Your task to perform on an android device: turn on data saver in the chrome app Image 0: 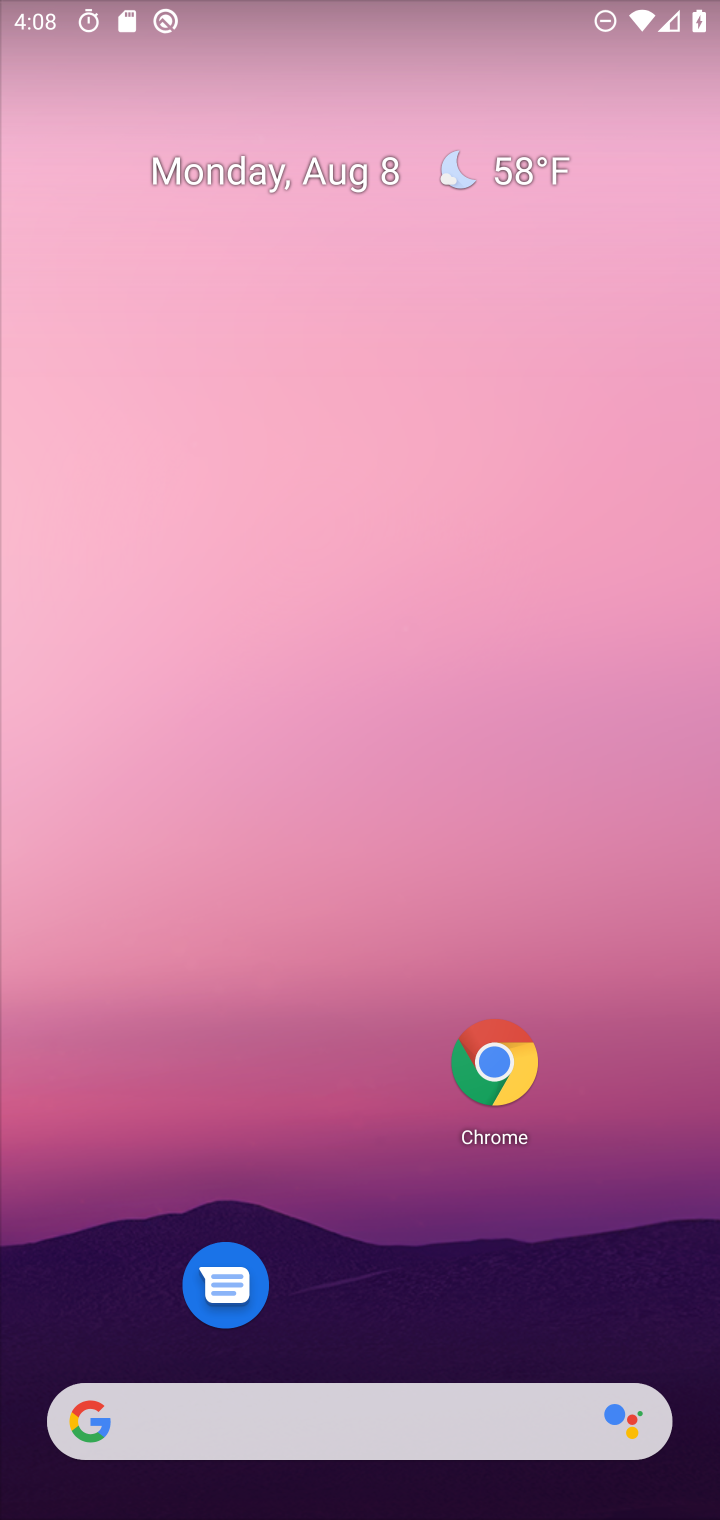
Step 0: click (497, 1068)
Your task to perform on an android device: turn on data saver in the chrome app Image 1: 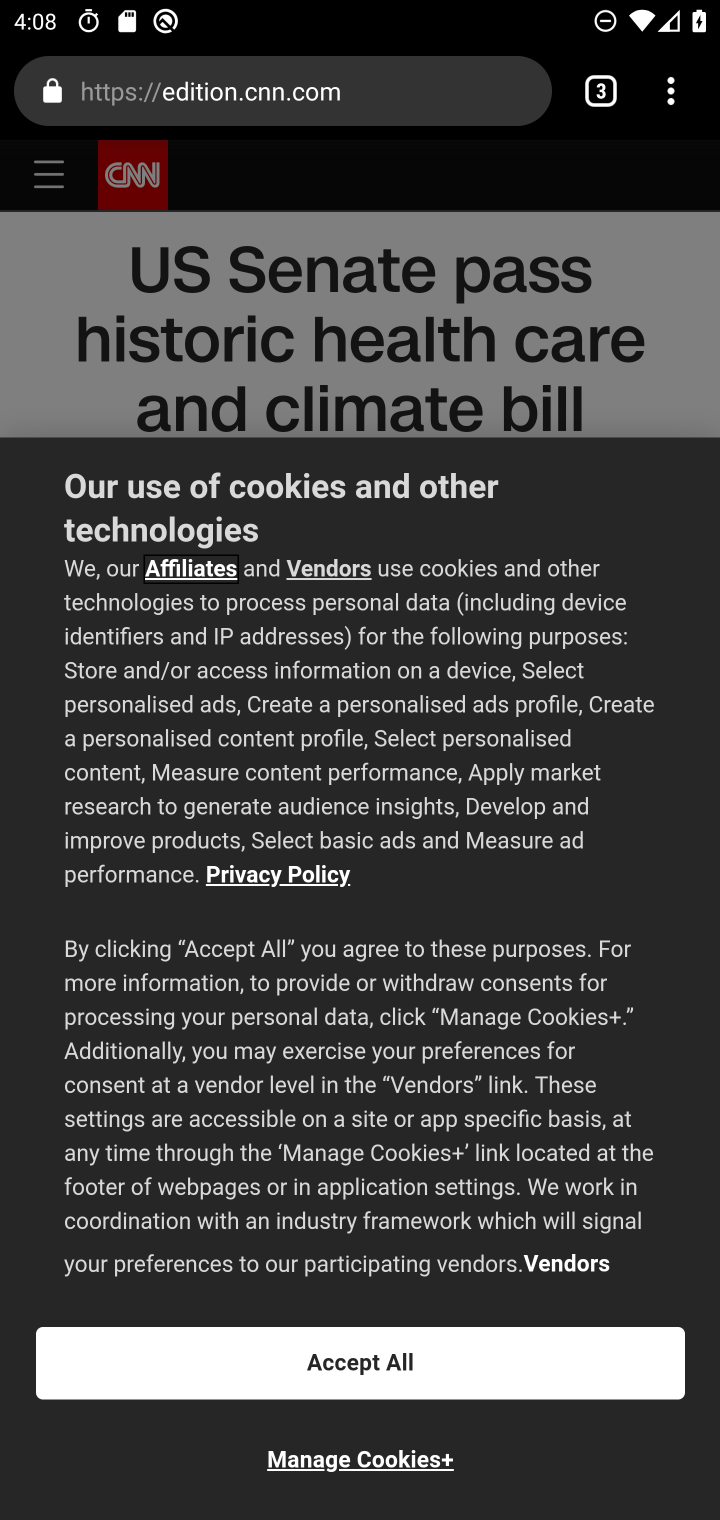
Step 1: drag from (686, 89) to (365, 1131)
Your task to perform on an android device: turn on data saver in the chrome app Image 2: 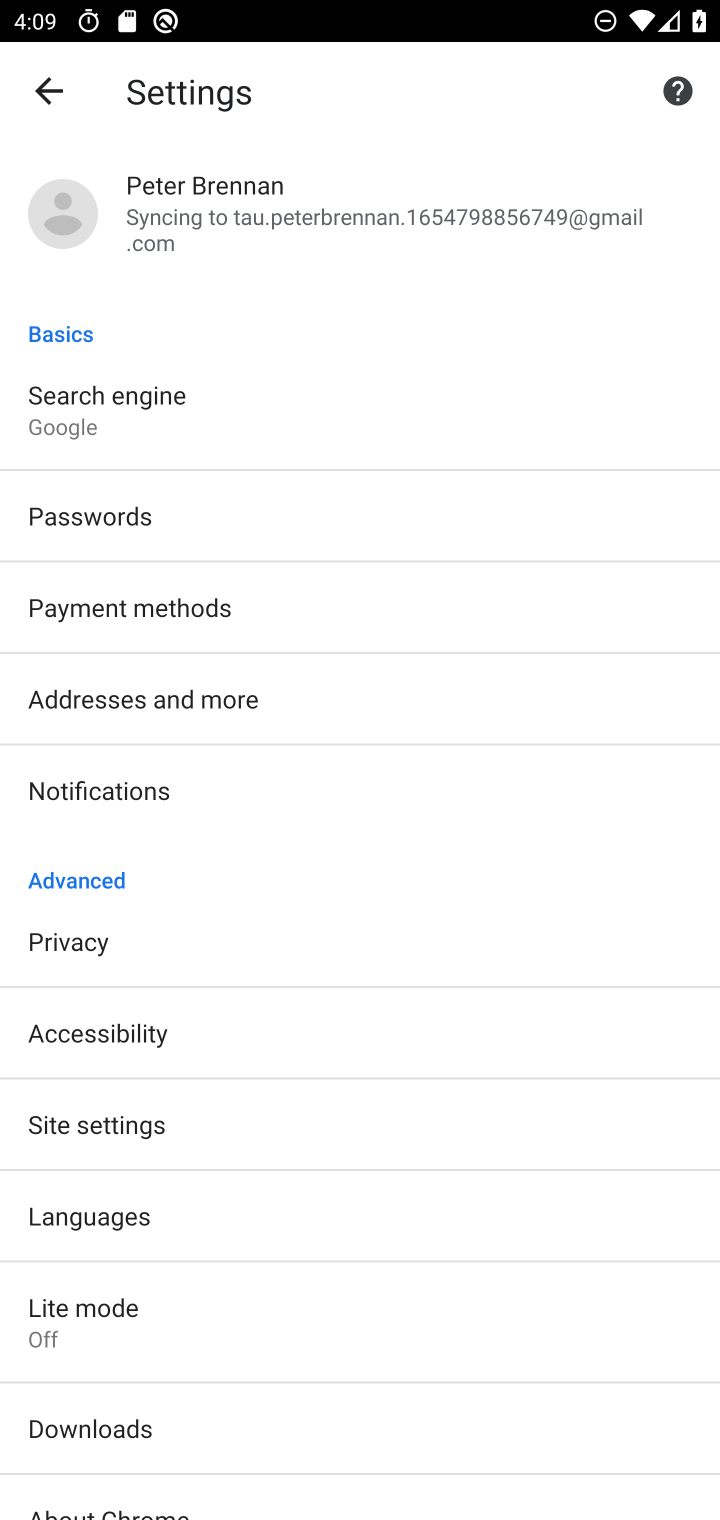
Step 2: click (105, 1327)
Your task to perform on an android device: turn on data saver in the chrome app Image 3: 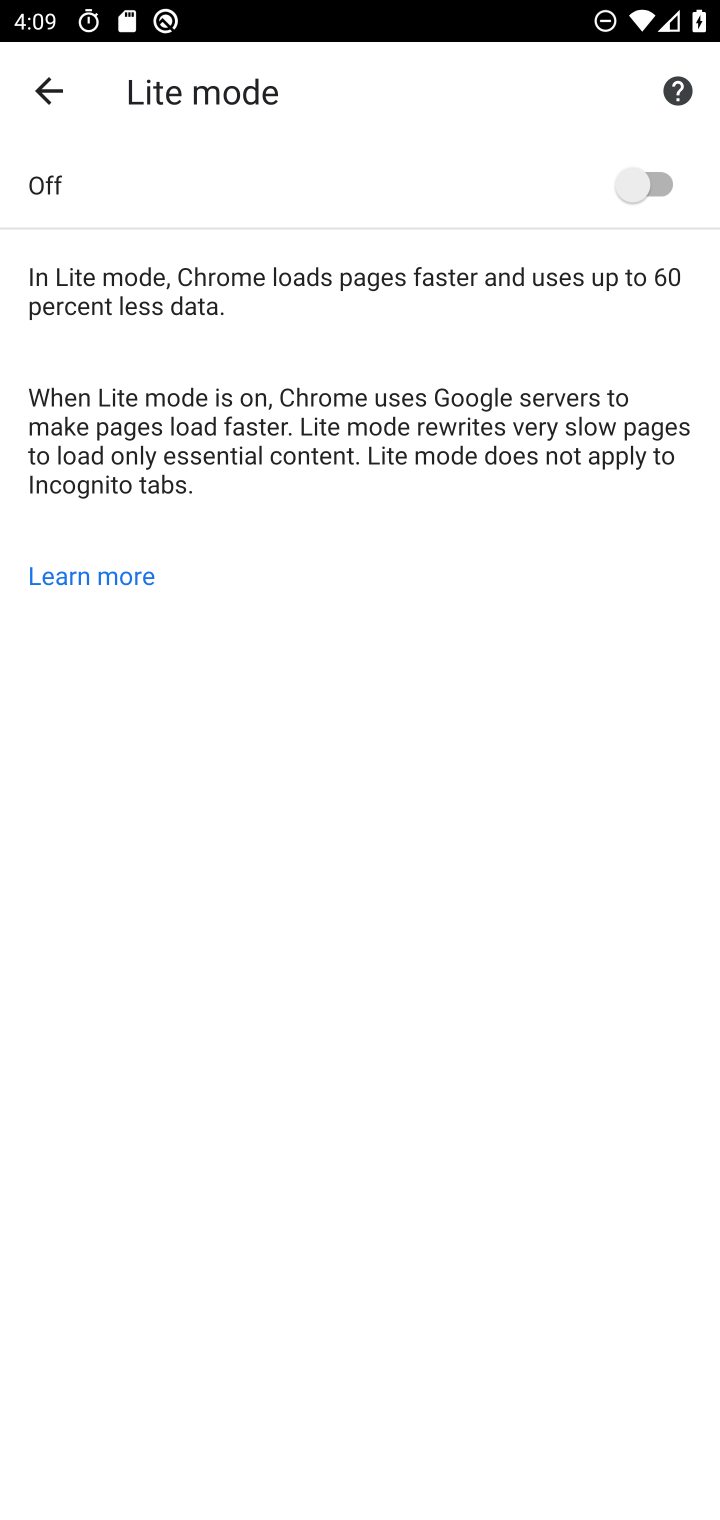
Step 3: click (636, 182)
Your task to perform on an android device: turn on data saver in the chrome app Image 4: 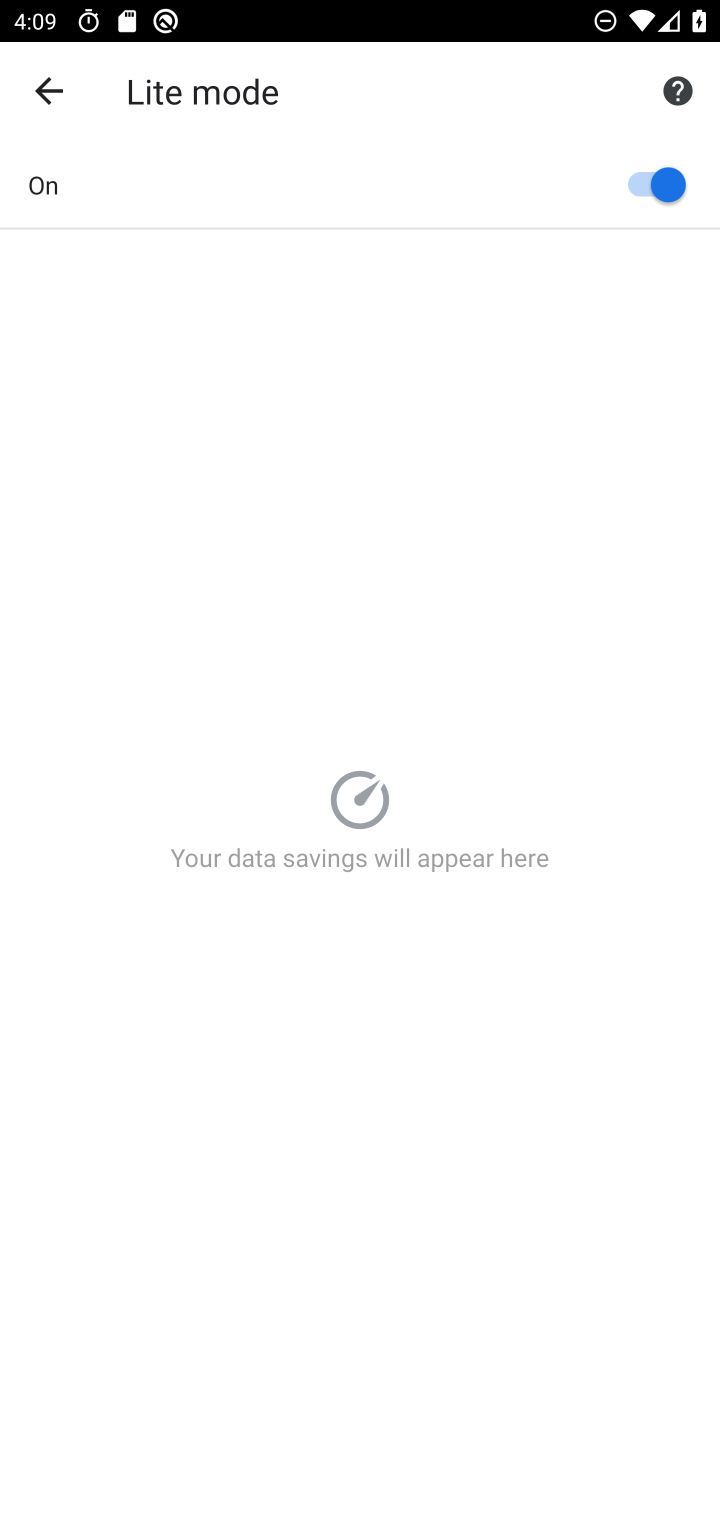
Step 4: task complete